Your task to perform on an android device: empty trash in the gmail app Image 0: 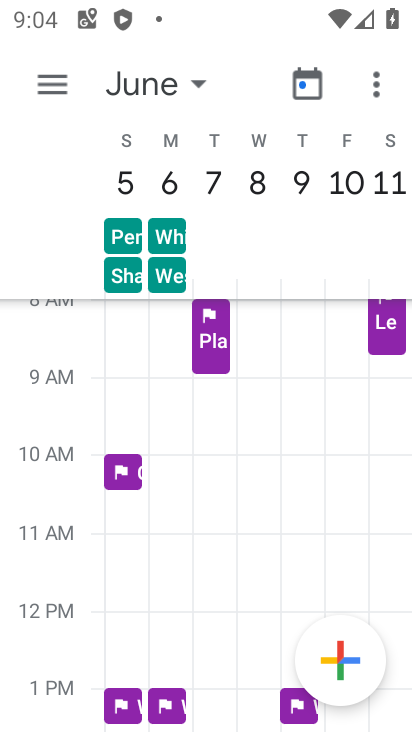
Step 0: press back button
Your task to perform on an android device: empty trash in the gmail app Image 1: 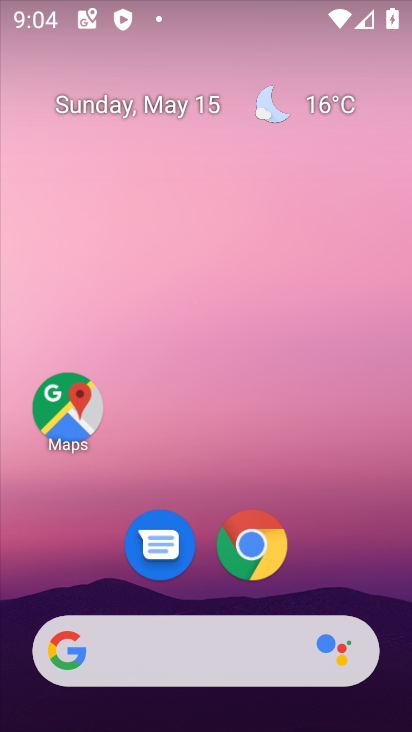
Step 1: drag from (340, 563) to (350, 112)
Your task to perform on an android device: empty trash in the gmail app Image 2: 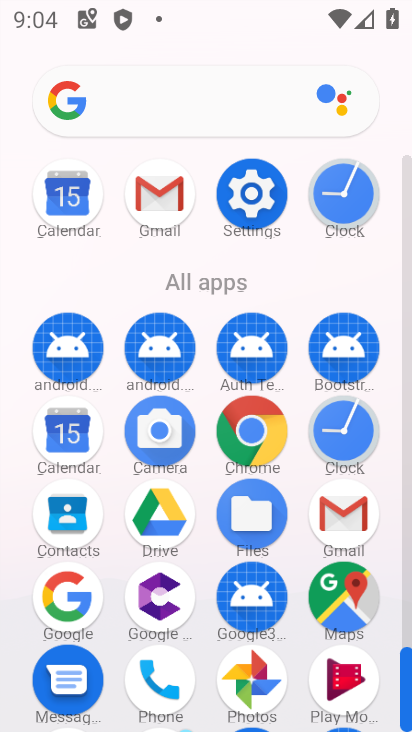
Step 2: click (156, 196)
Your task to perform on an android device: empty trash in the gmail app Image 3: 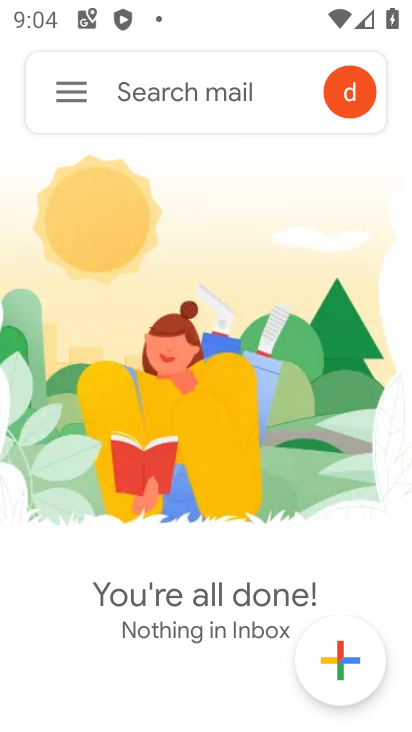
Step 3: click (69, 96)
Your task to perform on an android device: empty trash in the gmail app Image 4: 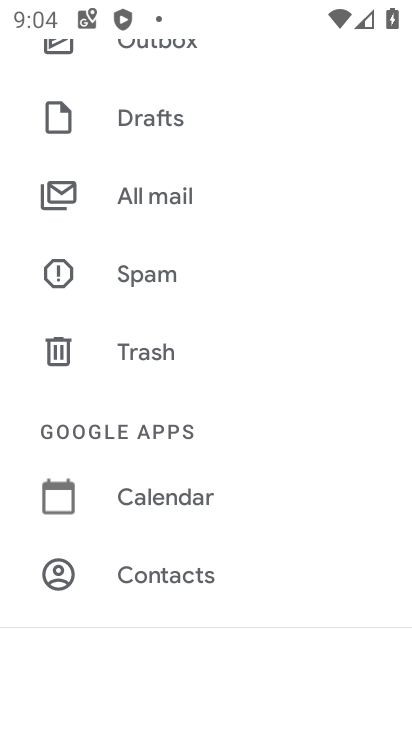
Step 4: click (173, 361)
Your task to perform on an android device: empty trash in the gmail app Image 5: 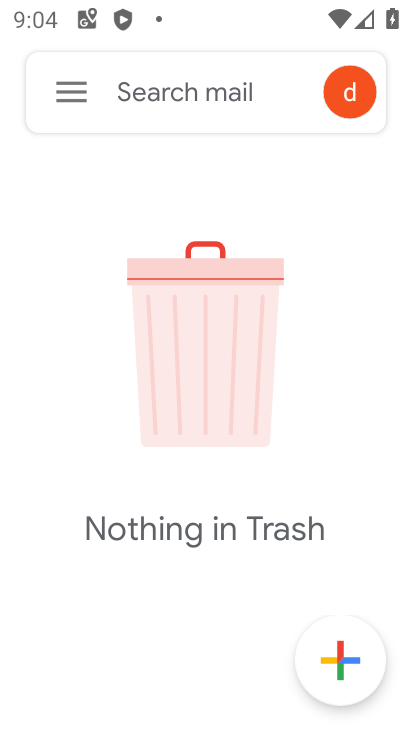
Step 5: task complete